Your task to perform on an android device: add a contact Image 0: 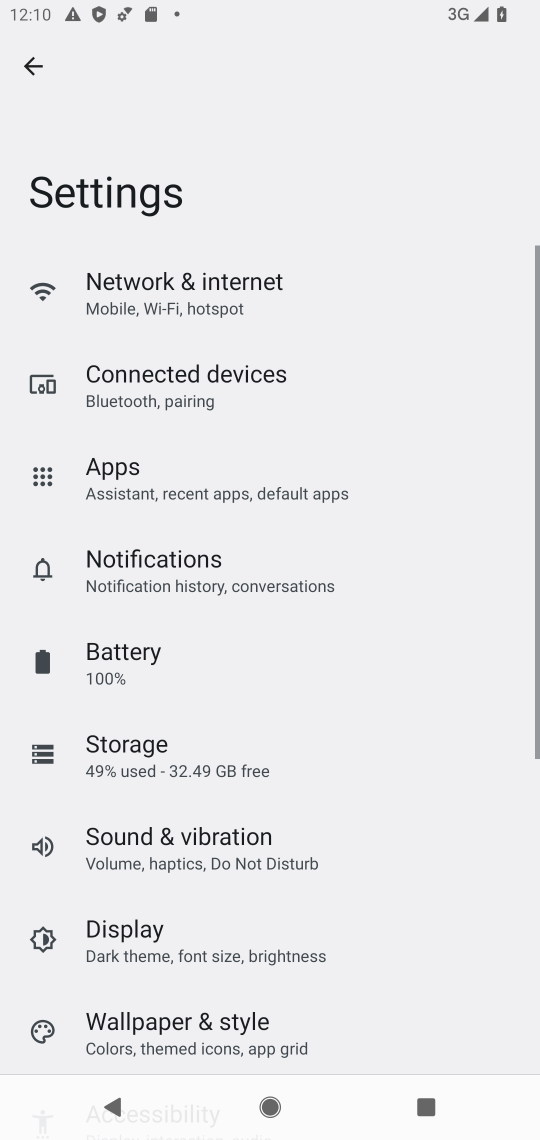
Step 0: drag from (347, 959) to (328, 325)
Your task to perform on an android device: add a contact Image 1: 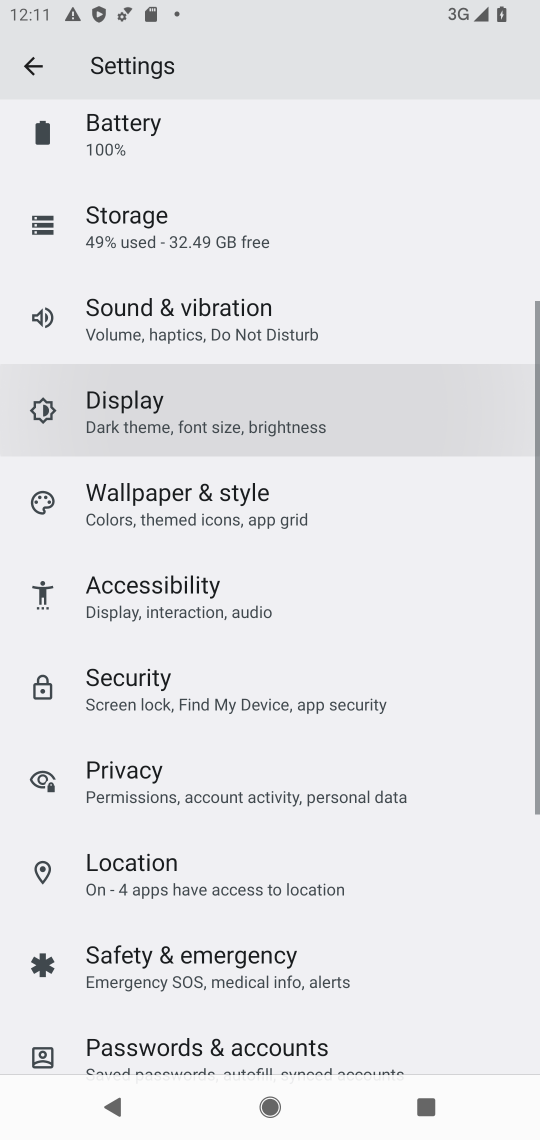
Step 1: drag from (336, 229) to (538, 1023)
Your task to perform on an android device: add a contact Image 2: 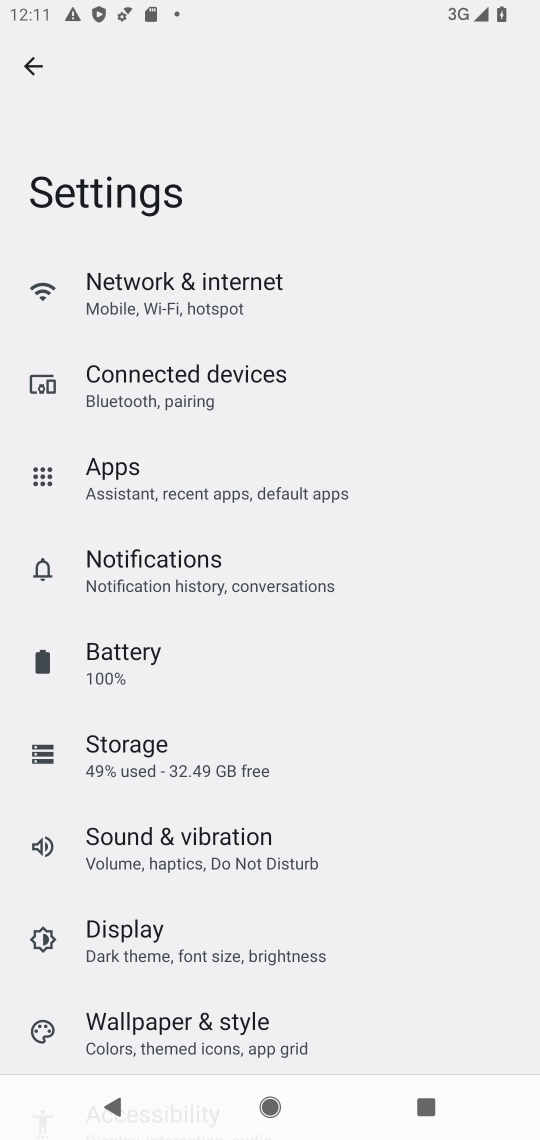
Step 2: drag from (331, 853) to (445, 414)
Your task to perform on an android device: add a contact Image 3: 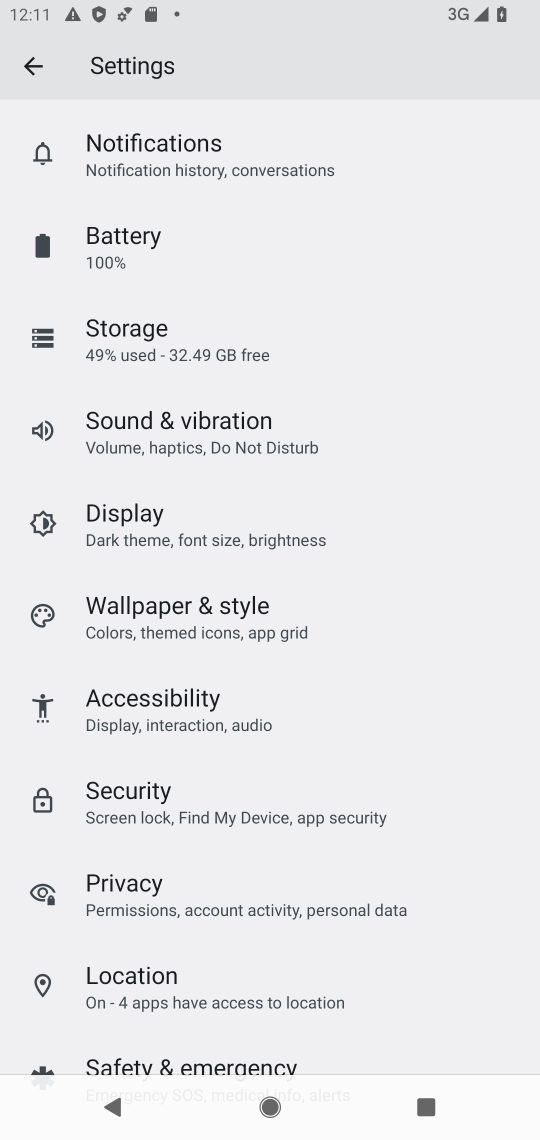
Step 3: press home button
Your task to perform on an android device: add a contact Image 4: 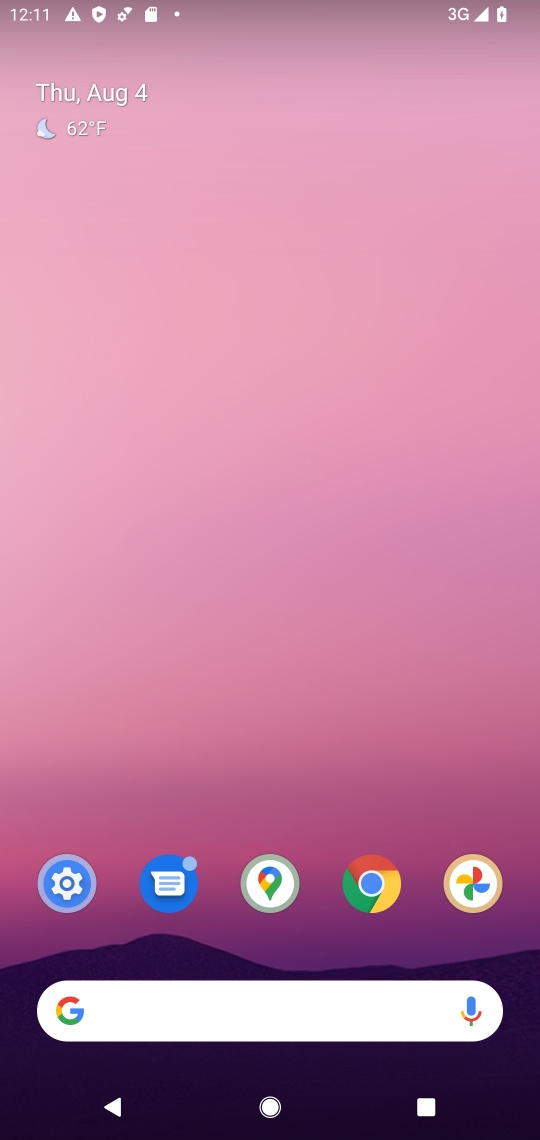
Step 4: drag from (312, 961) to (204, 278)
Your task to perform on an android device: add a contact Image 5: 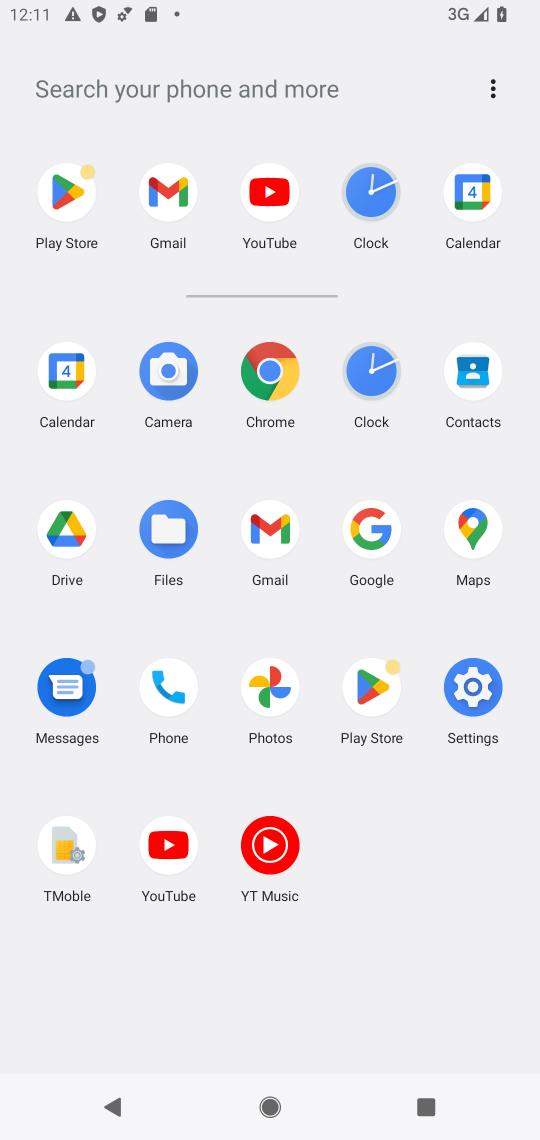
Step 5: click (481, 365)
Your task to perform on an android device: add a contact Image 6: 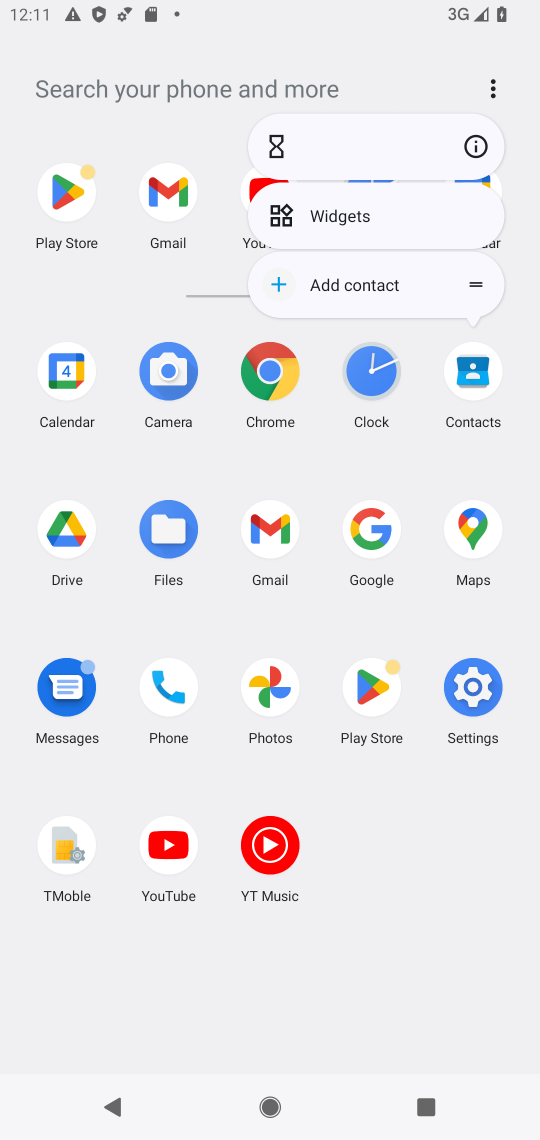
Step 6: click (483, 148)
Your task to perform on an android device: add a contact Image 7: 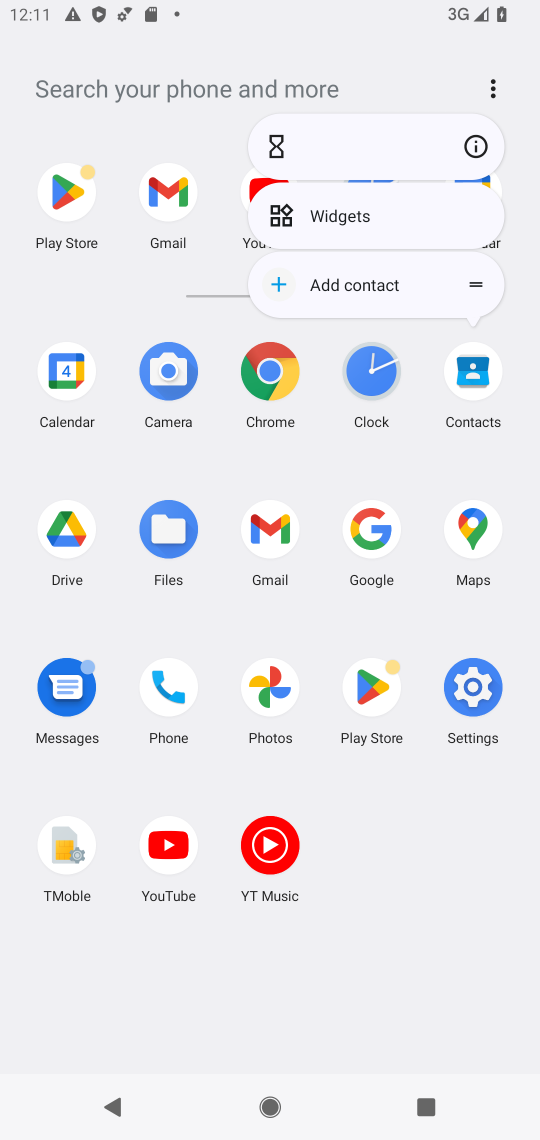
Step 7: click (473, 149)
Your task to perform on an android device: add a contact Image 8: 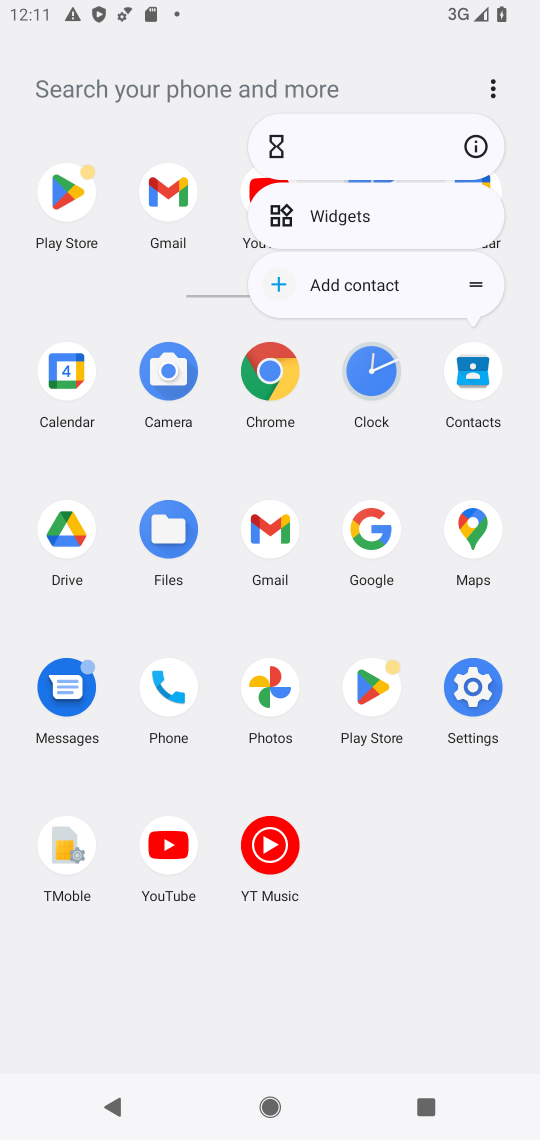
Step 8: click (483, 145)
Your task to perform on an android device: add a contact Image 9: 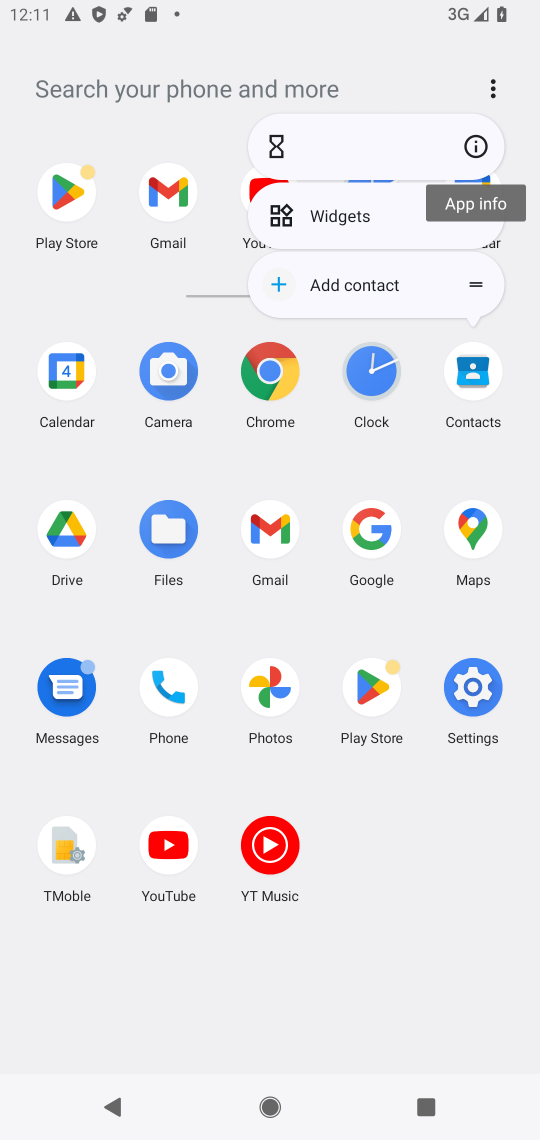
Step 9: click (487, 141)
Your task to perform on an android device: add a contact Image 10: 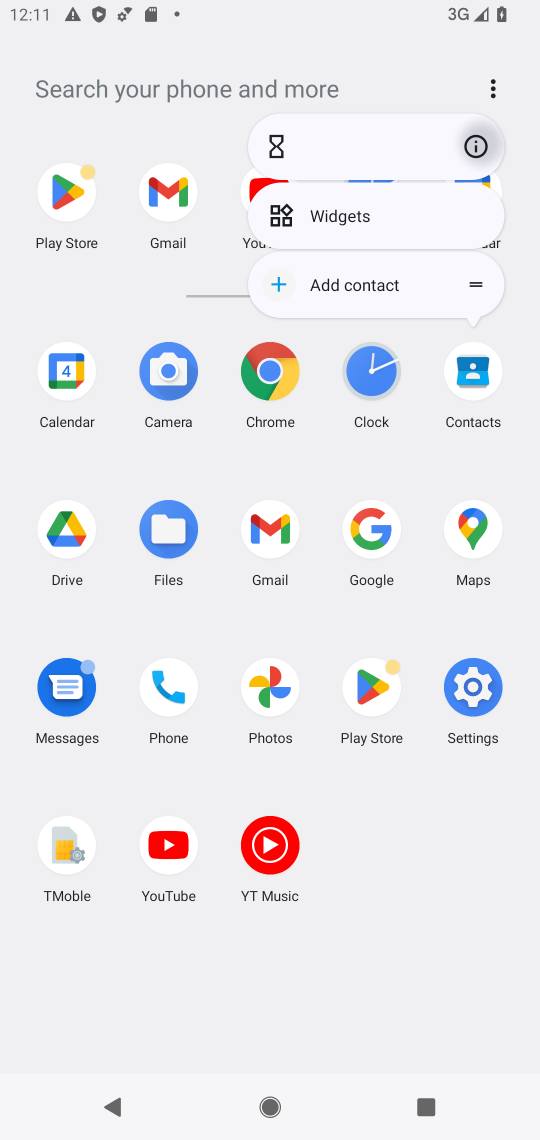
Step 10: click (487, 141)
Your task to perform on an android device: add a contact Image 11: 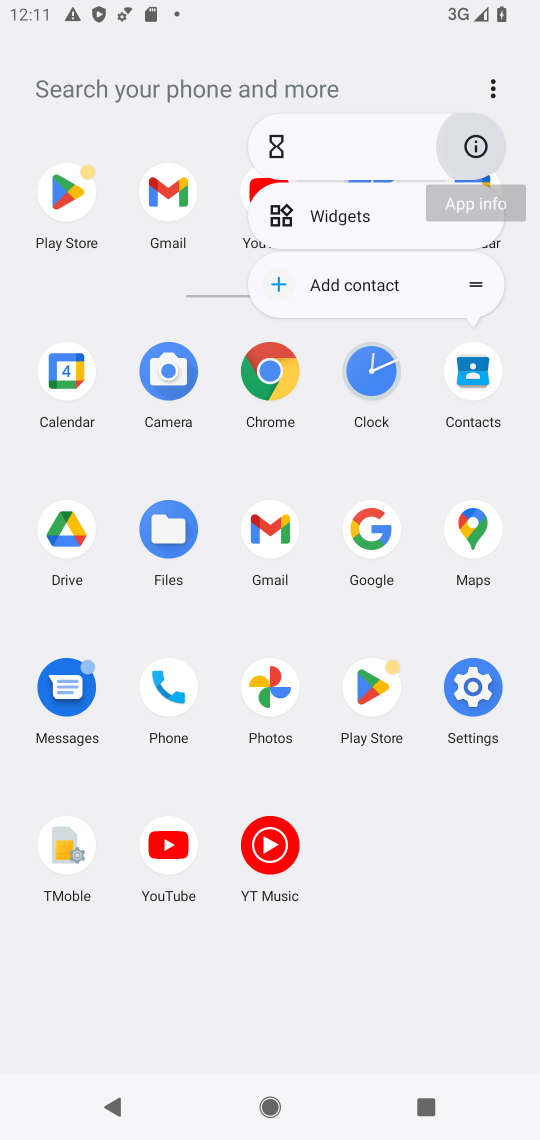
Step 11: click (487, 141)
Your task to perform on an android device: add a contact Image 12: 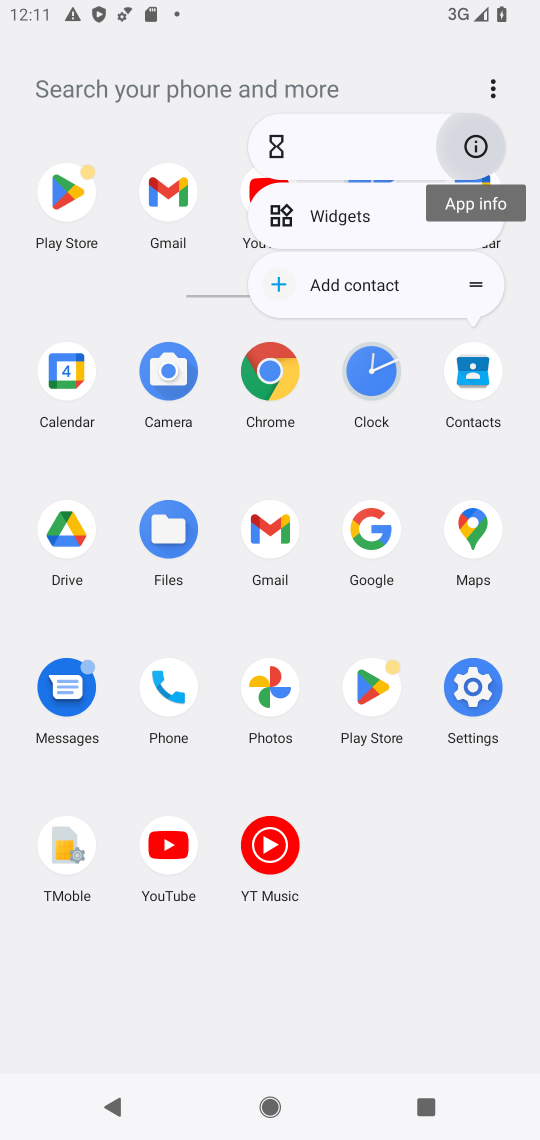
Step 12: click (487, 144)
Your task to perform on an android device: add a contact Image 13: 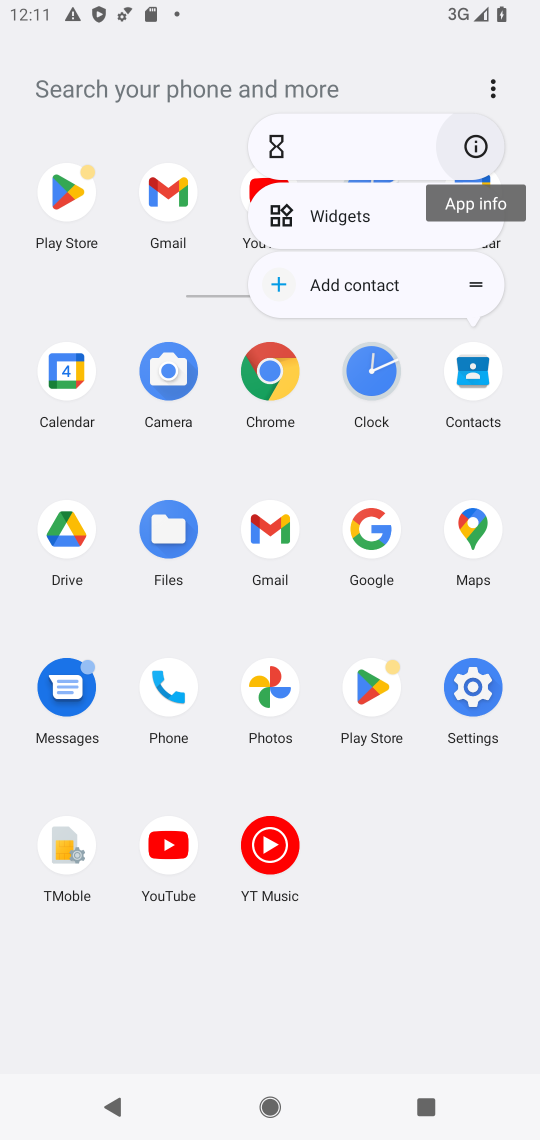
Step 13: click (468, 371)
Your task to perform on an android device: add a contact Image 14: 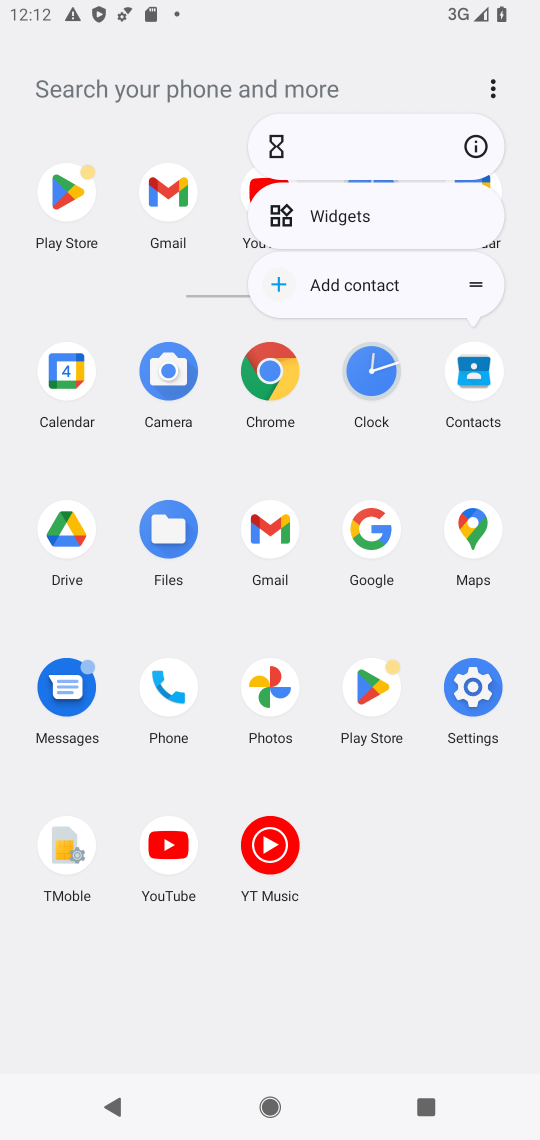
Step 14: click (475, 369)
Your task to perform on an android device: add a contact Image 15: 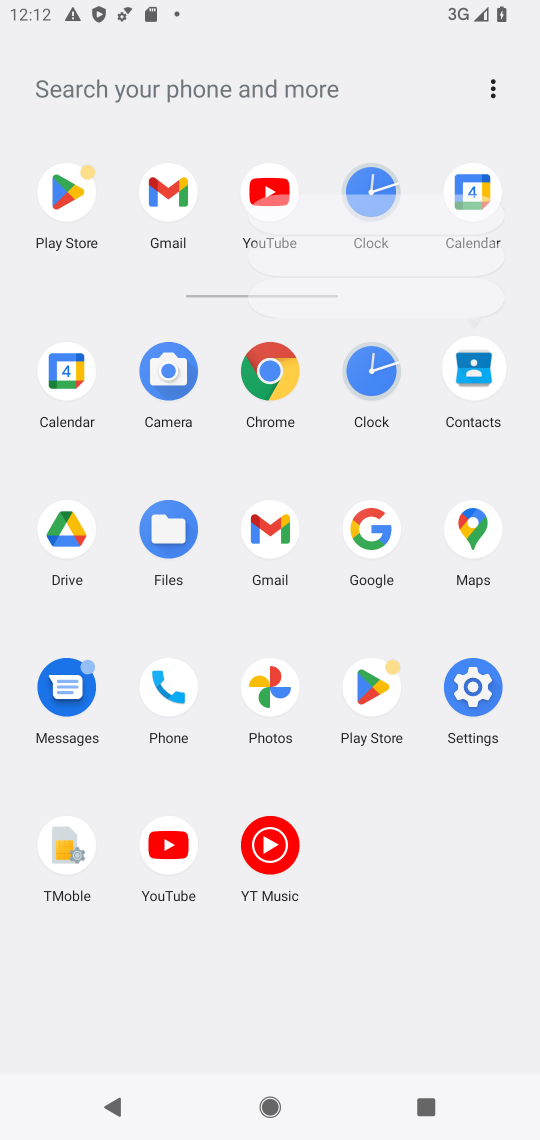
Step 15: click (476, 366)
Your task to perform on an android device: add a contact Image 16: 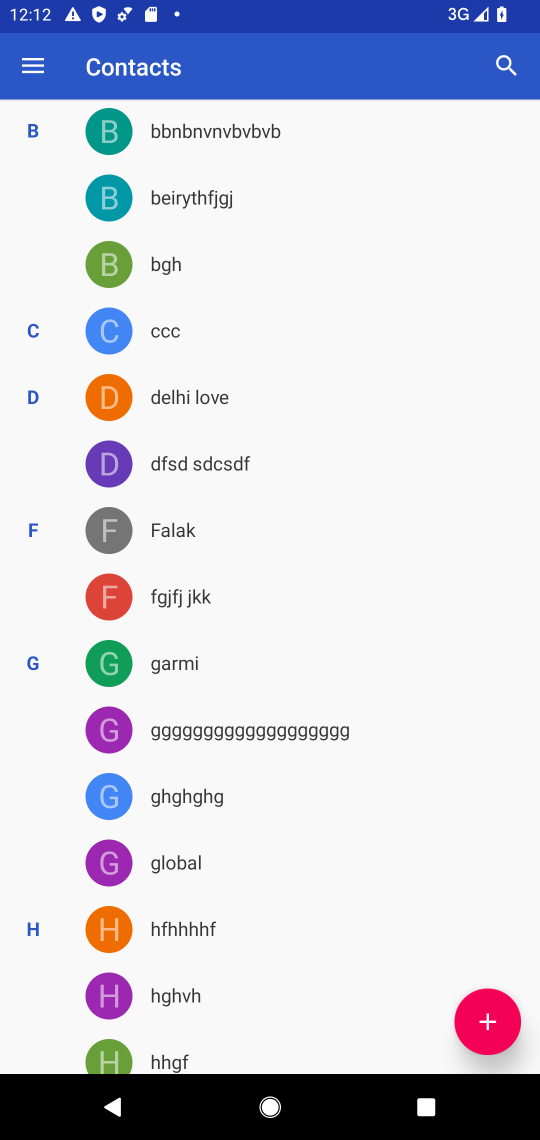
Step 16: drag from (224, 360) to (273, 1010)
Your task to perform on an android device: add a contact Image 17: 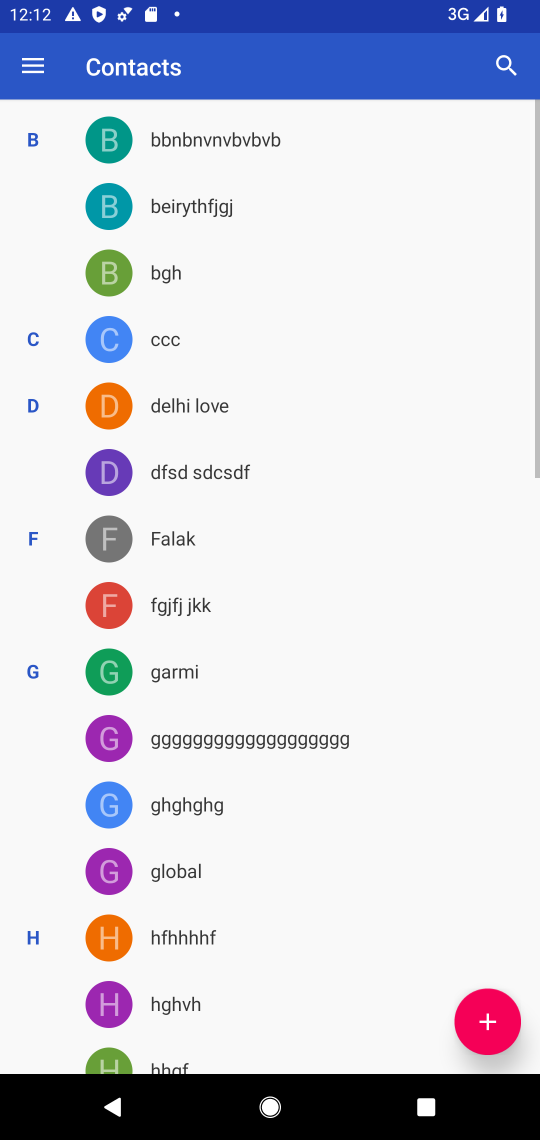
Step 17: click (496, 1019)
Your task to perform on an android device: add a contact Image 18: 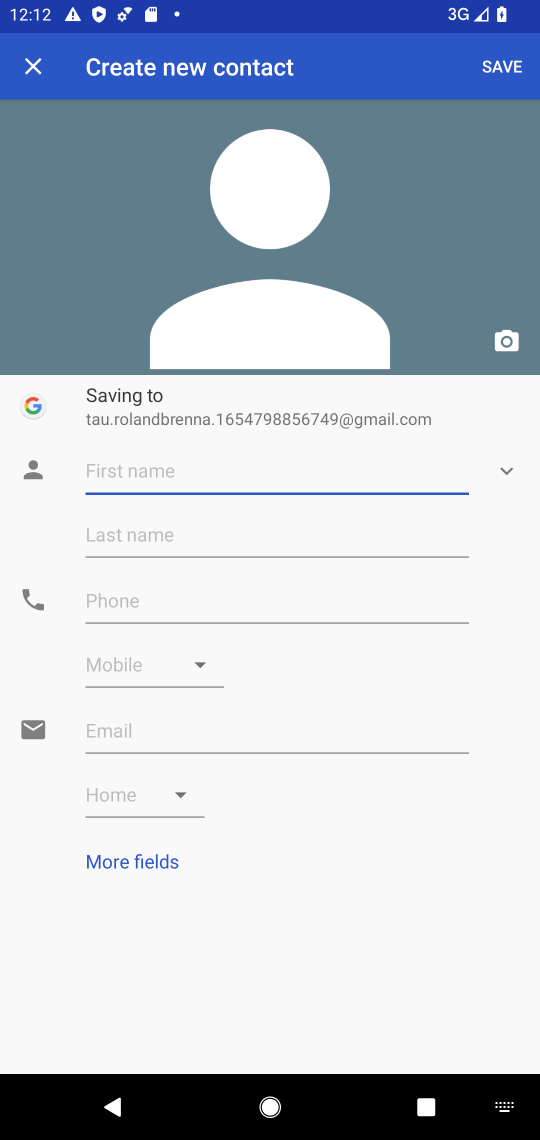
Step 18: click (215, 465)
Your task to perform on an android device: add a contact Image 19: 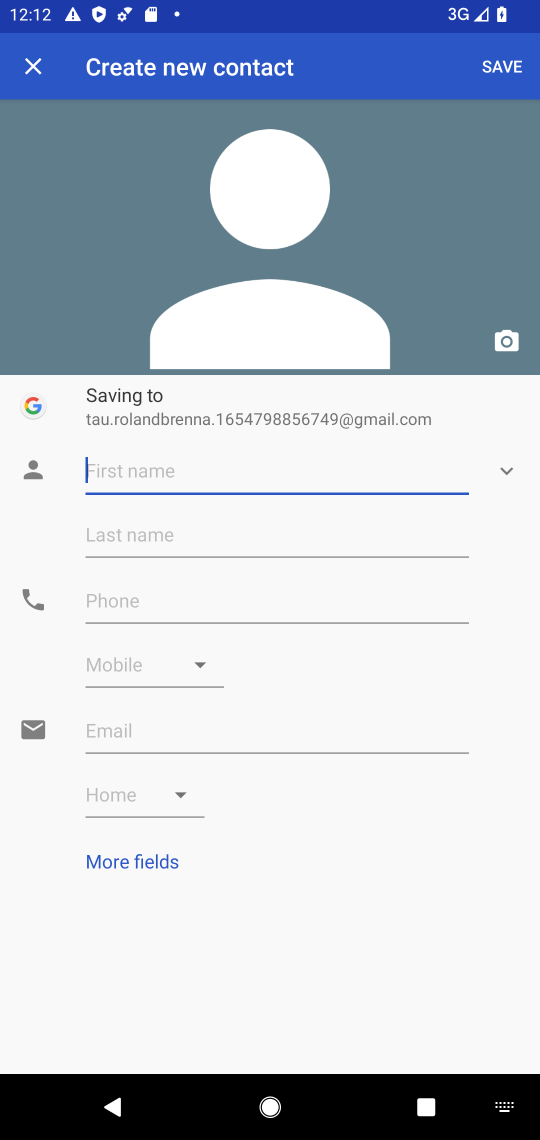
Step 19: type "lkl,kj"
Your task to perform on an android device: add a contact Image 20: 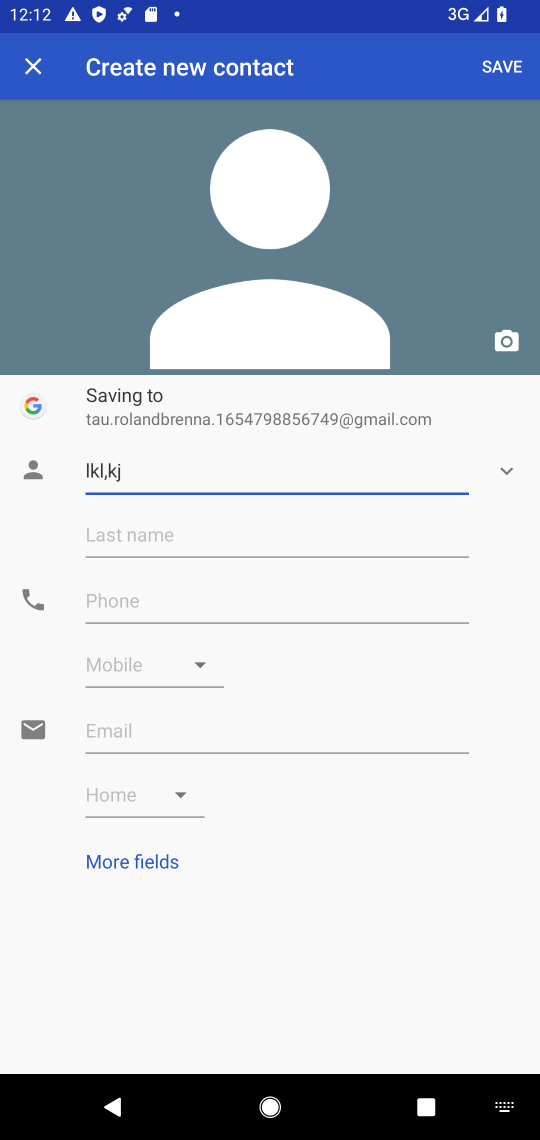
Step 20: click (491, 62)
Your task to perform on an android device: add a contact Image 21: 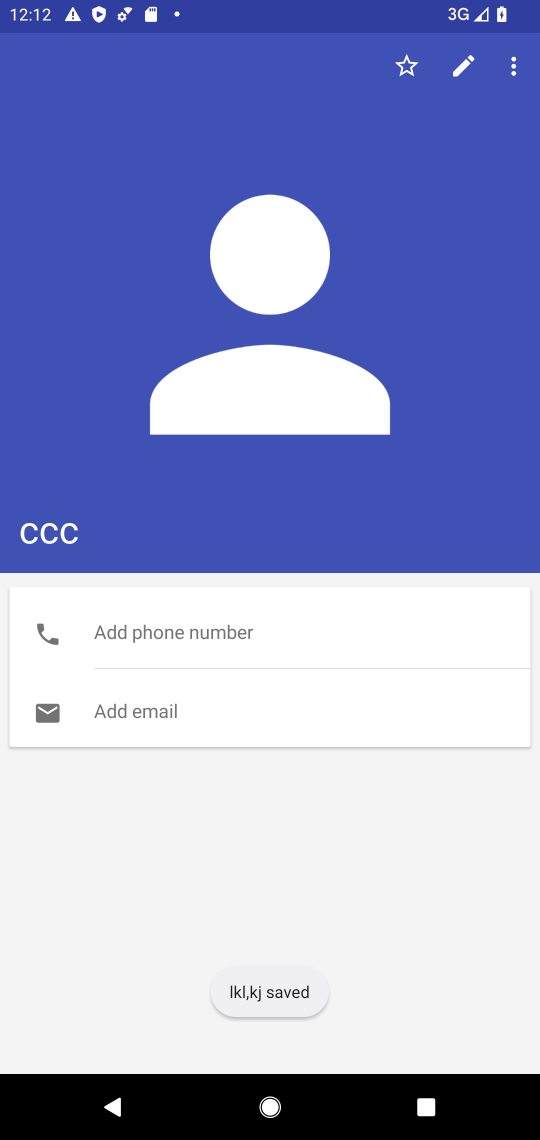
Step 21: task complete